Your task to perform on an android device: refresh tabs in the chrome app Image 0: 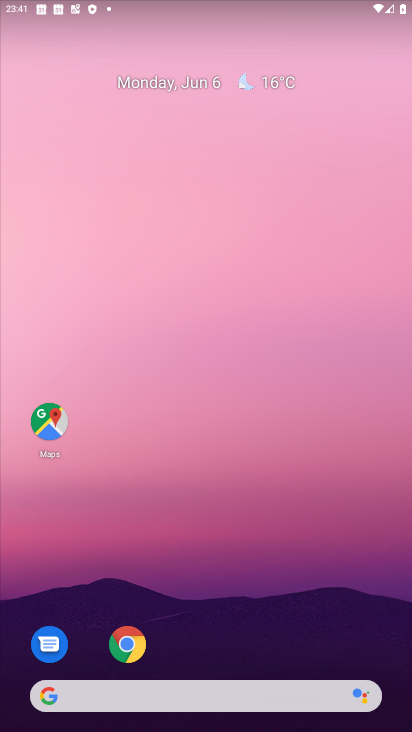
Step 0: drag from (243, 566) to (213, 35)
Your task to perform on an android device: refresh tabs in the chrome app Image 1: 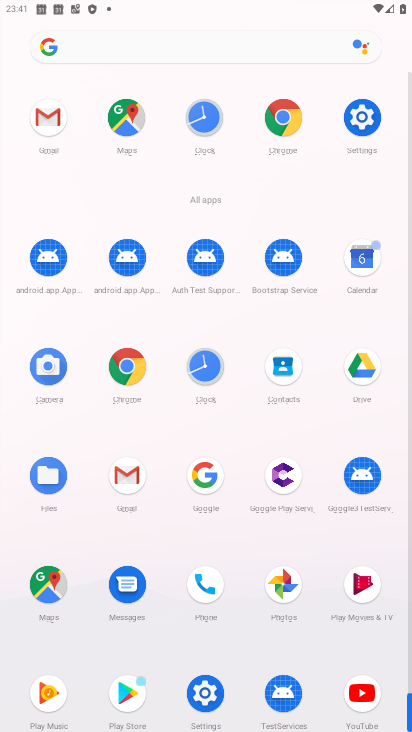
Step 1: drag from (27, 512) to (3, 162)
Your task to perform on an android device: refresh tabs in the chrome app Image 2: 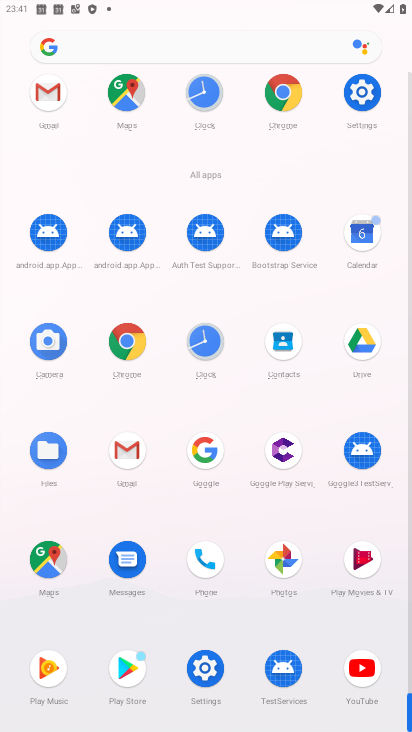
Step 2: click (123, 339)
Your task to perform on an android device: refresh tabs in the chrome app Image 3: 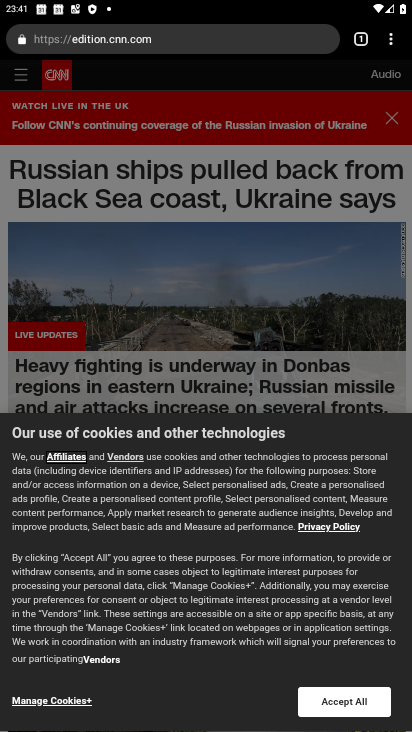
Step 3: click (390, 43)
Your task to perform on an android device: refresh tabs in the chrome app Image 4: 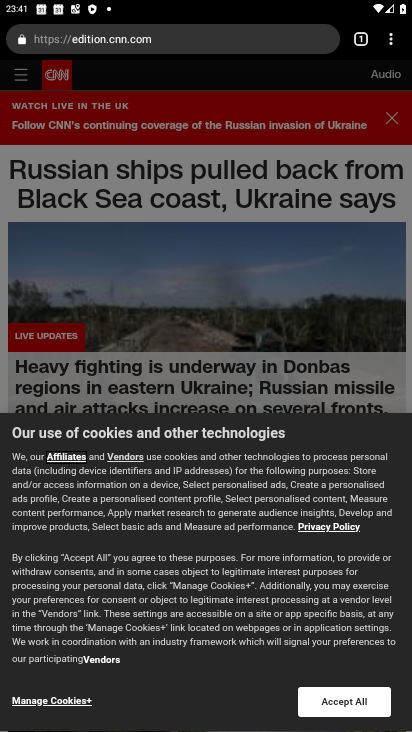
Step 4: task complete